Your task to perform on an android device: turn on showing notifications on the lock screen Image 0: 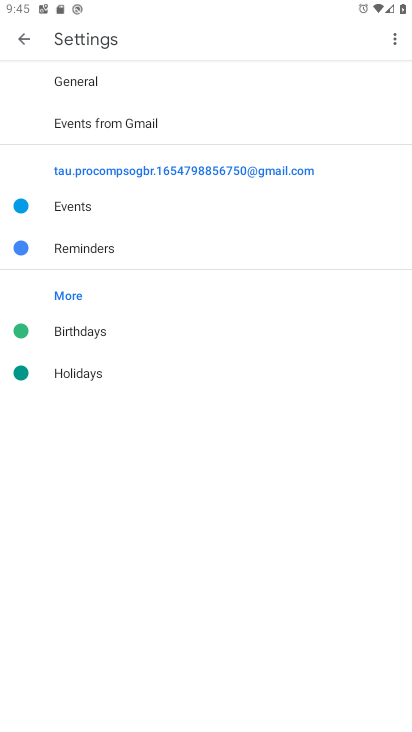
Step 0: press home button
Your task to perform on an android device: turn on showing notifications on the lock screen Image 1: 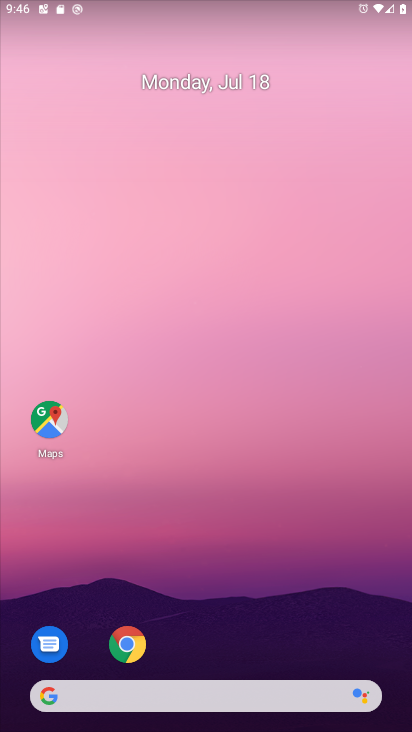
Step 1: drag from (207, 651) to (180, 151)
Your task to perform on an android device: turn on showing notifications on the lock screen Image 2: 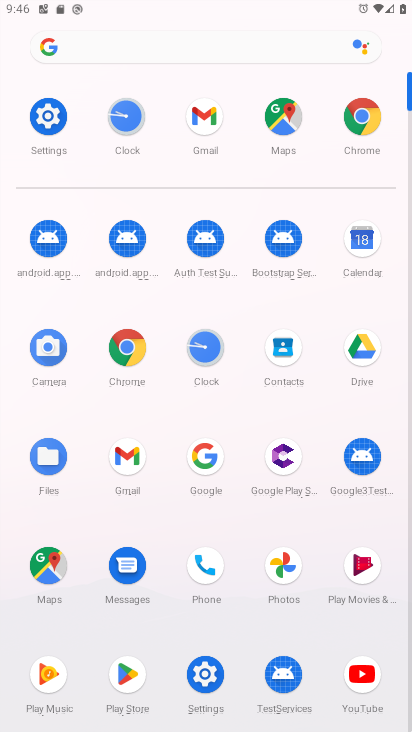
Step 2: click (40, 97)
Your task to perform on an android device: turn on showing notifications on the lock screen Image 3: 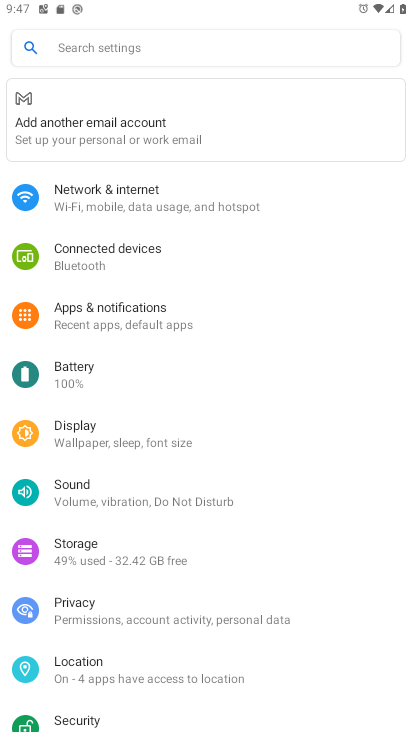
Step 3: click (188, 318)
Your task to perform on an android device: turn on showing notifications on the lock screen Image 4: 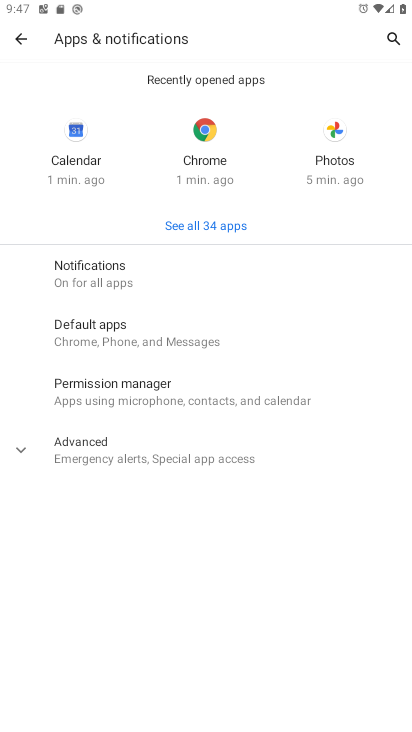
Step 4: click (139, 296)
Your task to perform on an android device: turn on showing notifications on the lock screen Image 5: 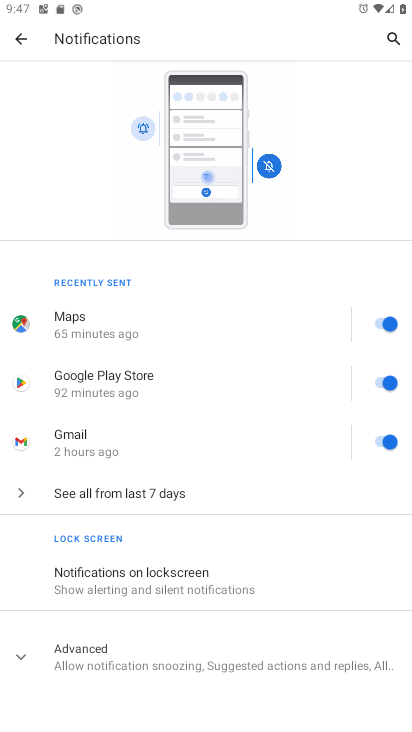
Step 5: click (149, 571)
Your task to perform on an android device: turn on showing notifications on the lock screen Image 6: 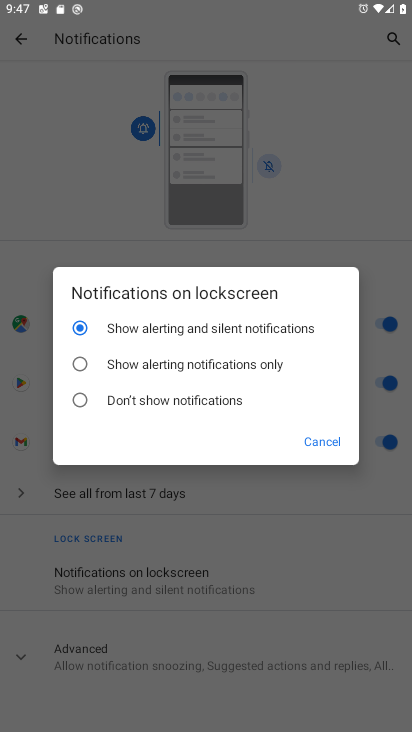
Step 6: click (208, 355)
Your task to perform on an android device: turn on showing notifications on the lock screen Image 7: 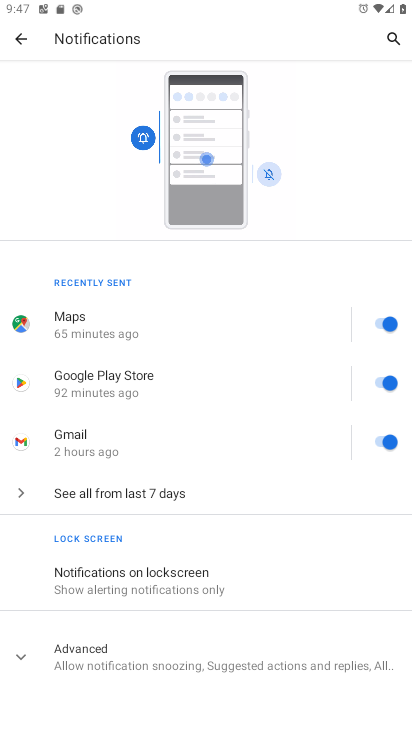
Step 7: task complete